Your task to perform on an android device: Open maps Image 0: 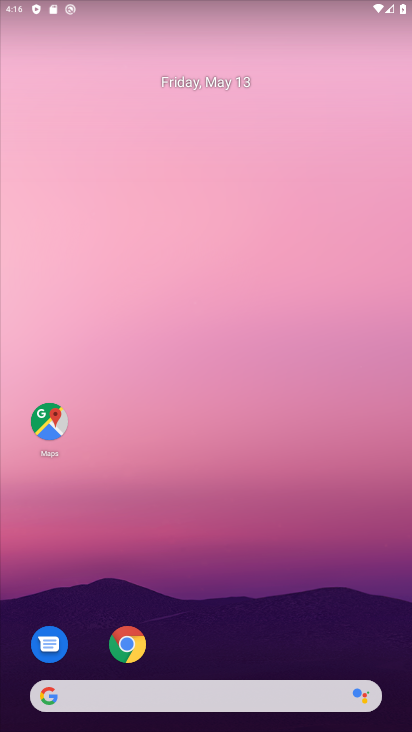
Step 0: click (42, 411)
Your task to perform on an android device: Open maps Image 1: 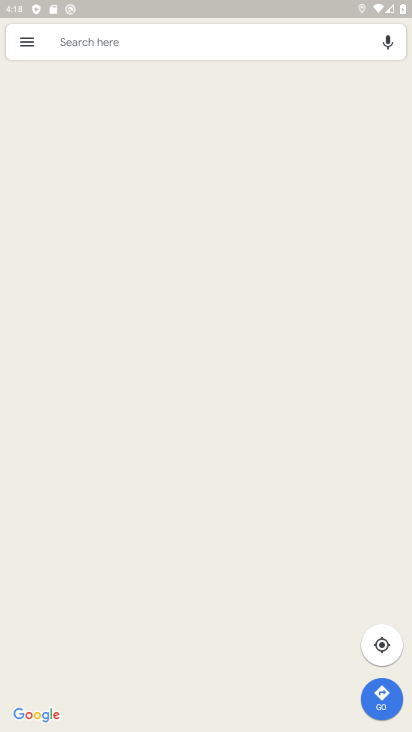
Step 1: task complete